Your task to perform on an android device: Open calendar and show me the fourth week of next month Image 0: 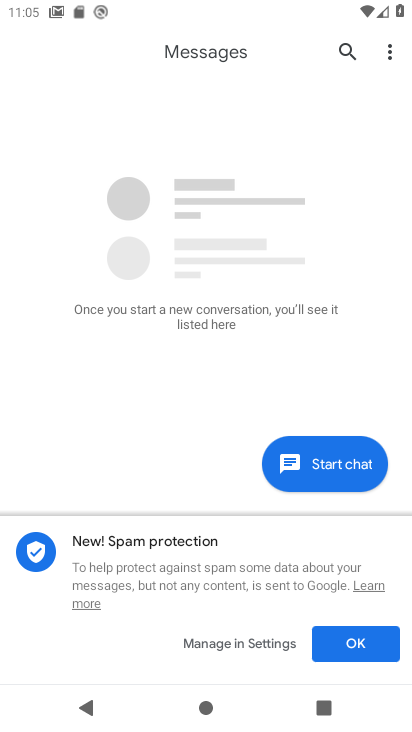
Step 0: press home button
Your task to perform on an android device: Open calendar and show me the fourth week of next month Image 1: 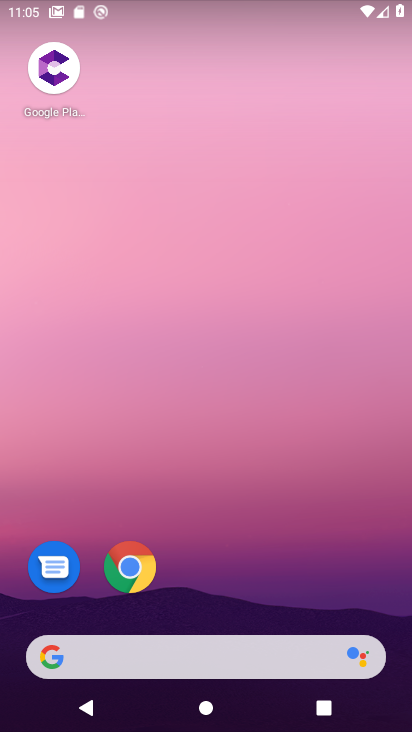
Step 1: drag from (241, 553) to (196, 0)
Your task to perform on an android device: Open calendar and show me the fourth week of next month Image 2: 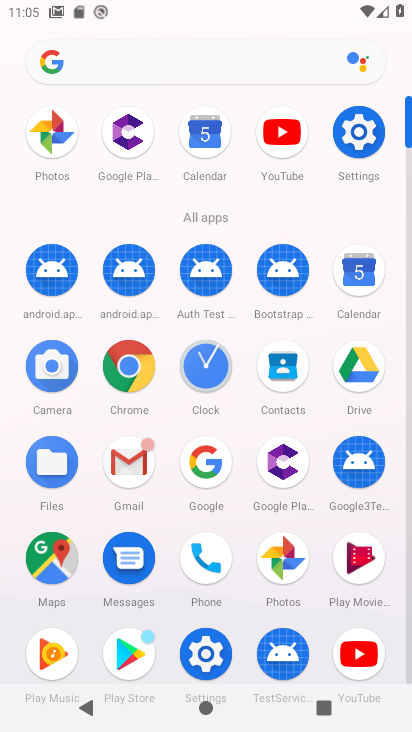
Step 2: click (367, 259)
Your task to perform on an android device: Open calendar and show me the fourth week of next month Image 3: 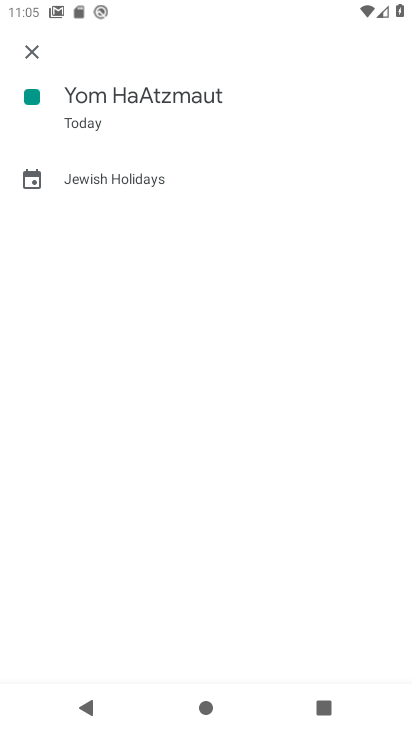
Step 3: click (30, 37)
Your task to perform on an android device: Open calendar and show me the fourth week of next month Image 4: 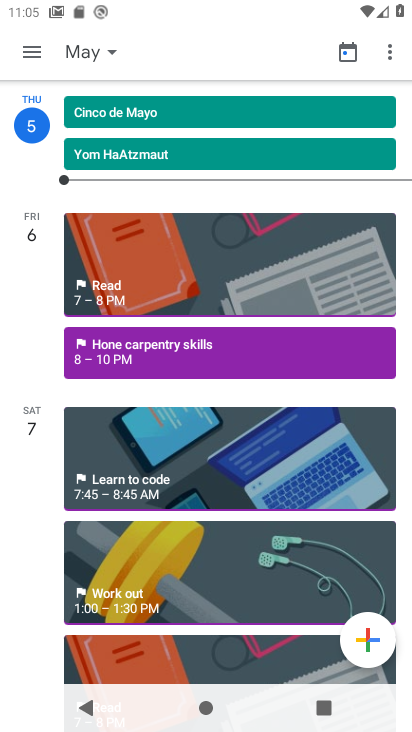
Step 4: click (108, 52)
Your task to perform on an android device: Open calendar and show me the fourth week of next month Image 5: 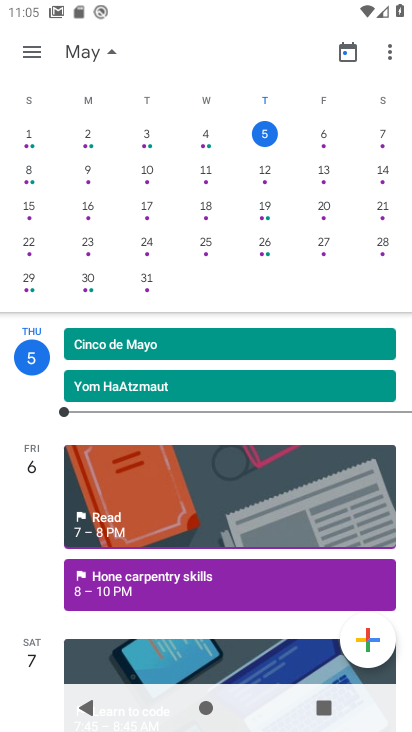
Step 5: drag from (293, 206) to (3, 95)
Your task to perform on an android device: Open calendar and show me the fourth week of next month Image 6: 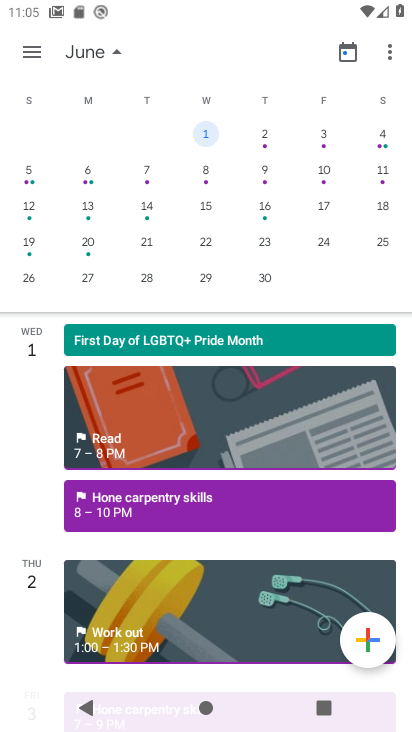
Step 6: click (31, 51)
Your task to perform on an android device: Open calendar and show me the fourth week of next month Image 7: 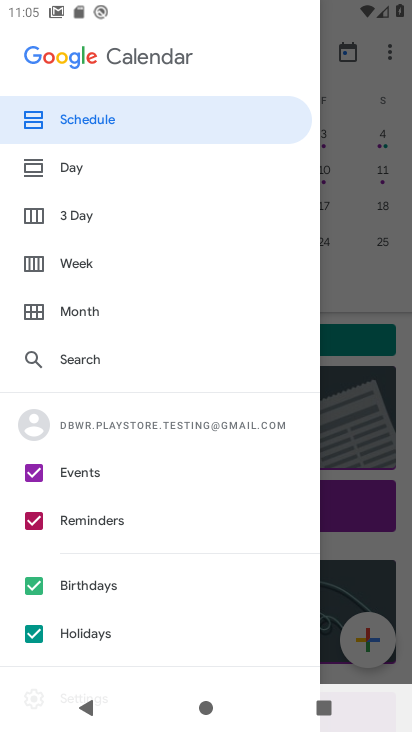
Step 7: click (43, 269)
Your task to perform on an android device: Open calendar and show me the fourth week of next month Image 8: 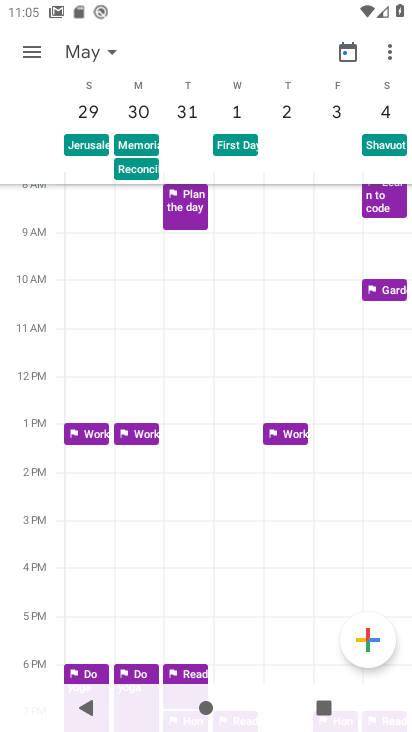
Step 8: task complete